Your task to perform on an android device: Go to ESPN.com Image 0: 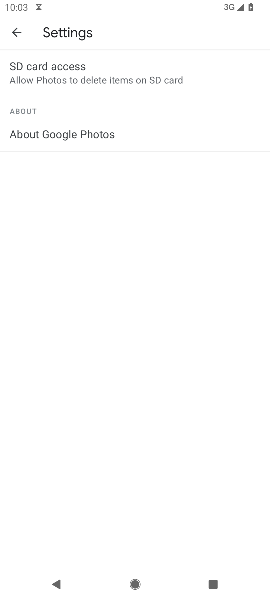
Step 0: press home button
Your task to perform on an android device: Go to ESPN.com Image 1: 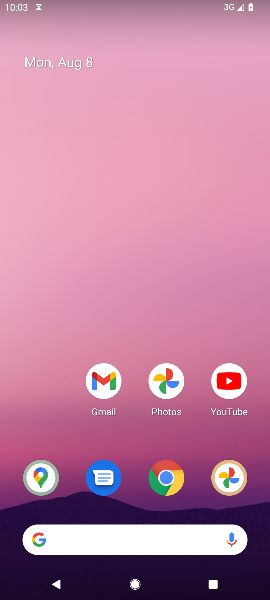
Step 1: click (168, 481)
Your task to perform on an android device: Go to ESPN.com Image 2: 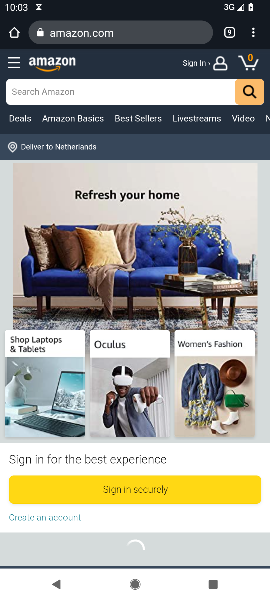
Step 2: drag from (256, 30) to (164, 113)
Your task to perform on an android device: Go to ESPN.com Image 3: 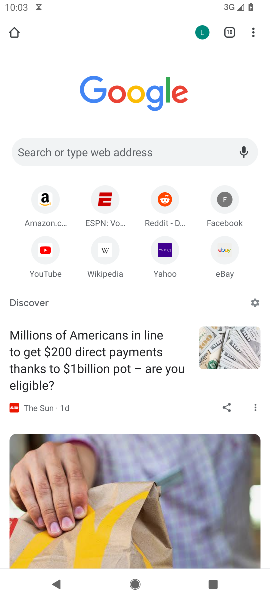
Step 3: click (105, 203)
Your task to perform on an android device: Go to ESPN.com Image 4: 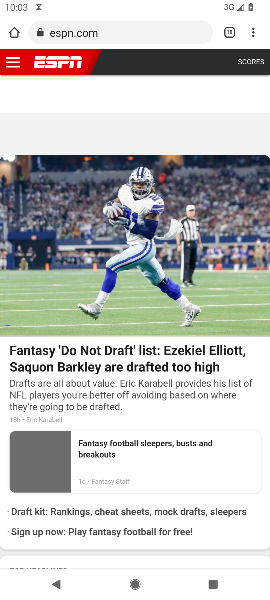
Step 4: task complete